Your task to perform on an android device: Show the shopping cart on ebay. Search for "bose quietcomfort 35" on ebay, select the first entry, and add it to the cart. Image 0: 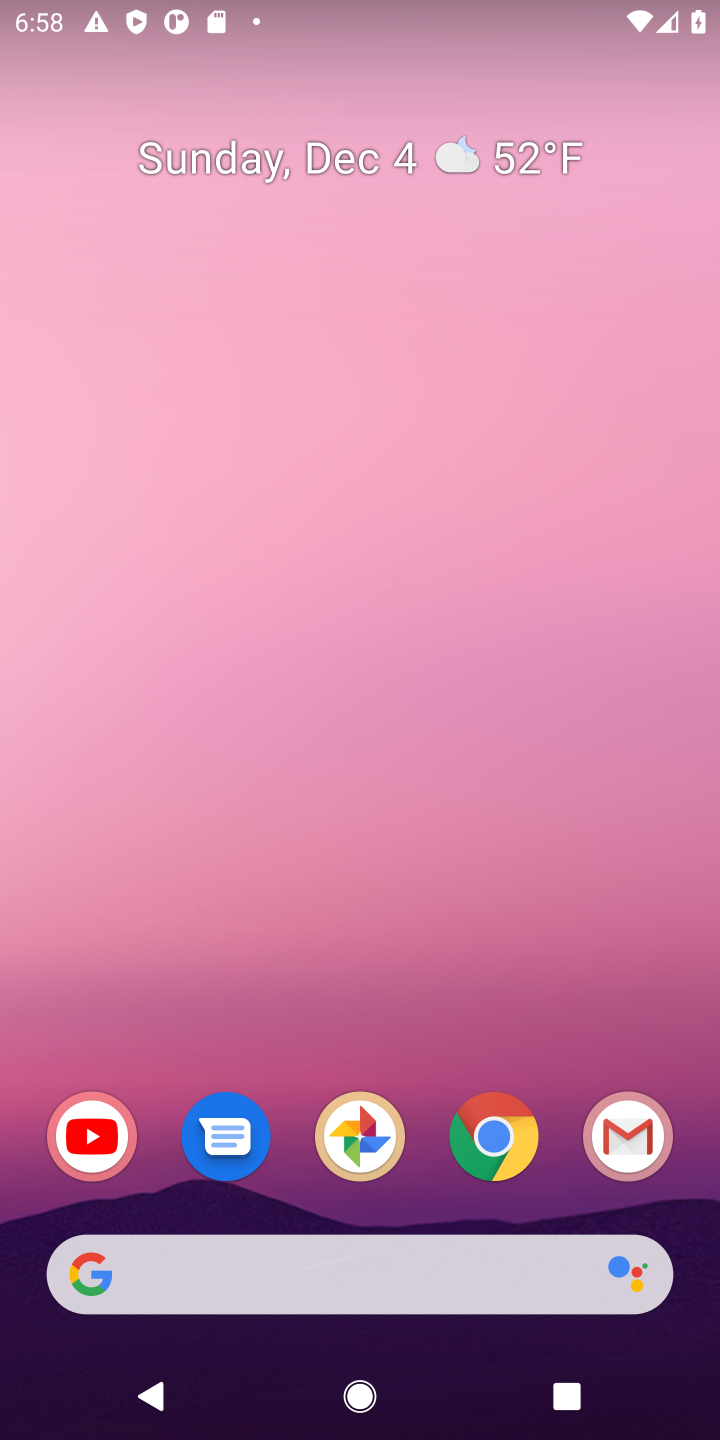
Step 0: click (497, 1126)
Your task to perform on an android device: Show the shopping cart on ebay. Search for "bose quietcomfort 35" on ebay, select the first entry, and add it to the cart. Image 1: 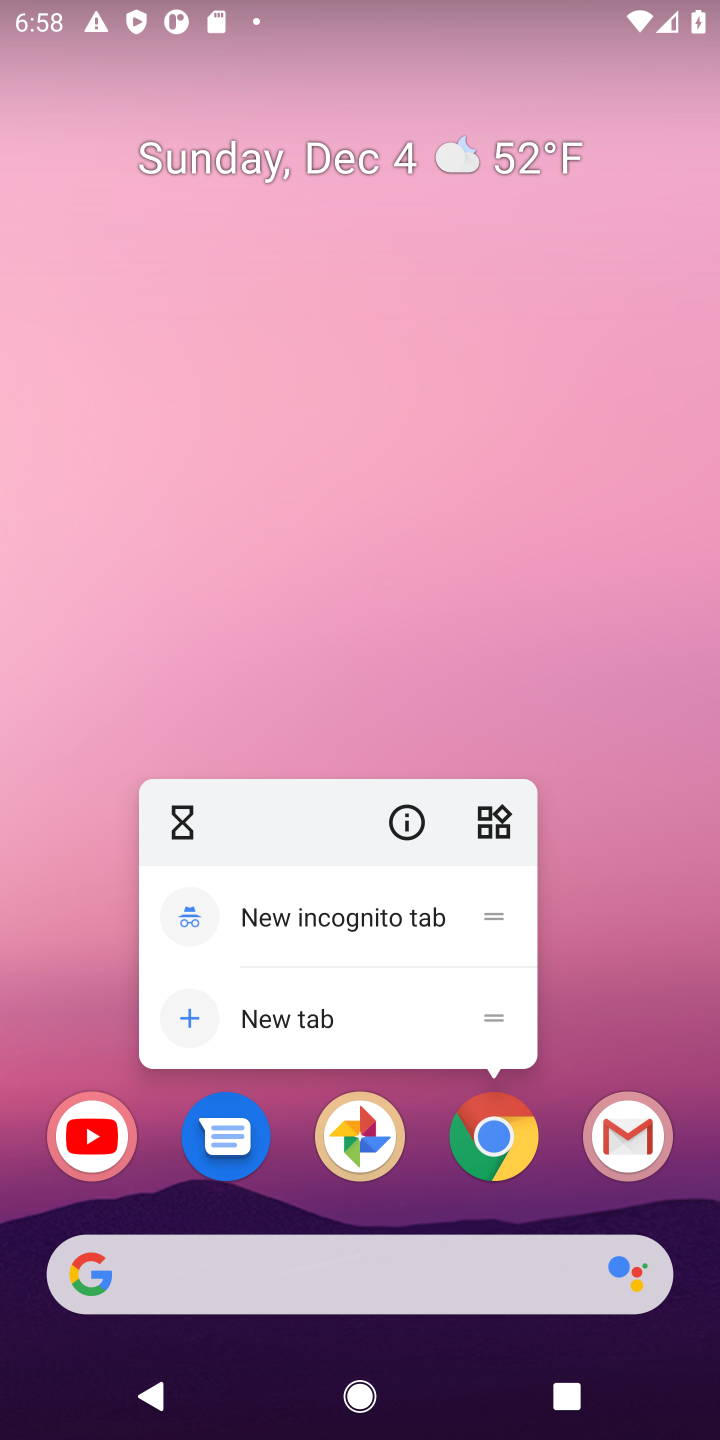
Step 1: click (497, 1126)
Your task to perform on an android device: Show the shopping cart on ebay. Search for "bose quietcomfort 35" on ebay, select the first entry, and add it to the cart. Image 2: 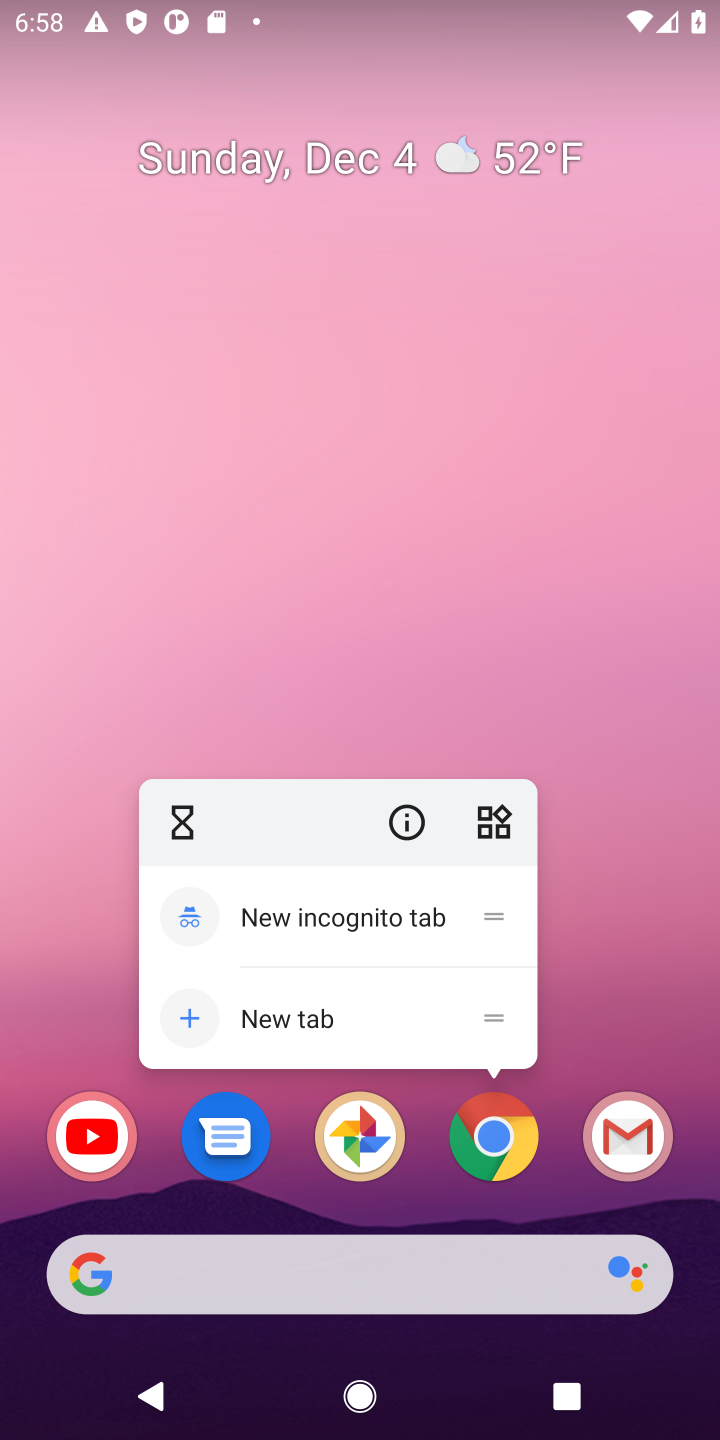
Step 2: click (499, 1140)
Your task to perform on an android device: Show the shopping cart on ebay. Search for "bose quietcomfort 35" on ebay, select the first entry, and add it to the cart. Image 3: 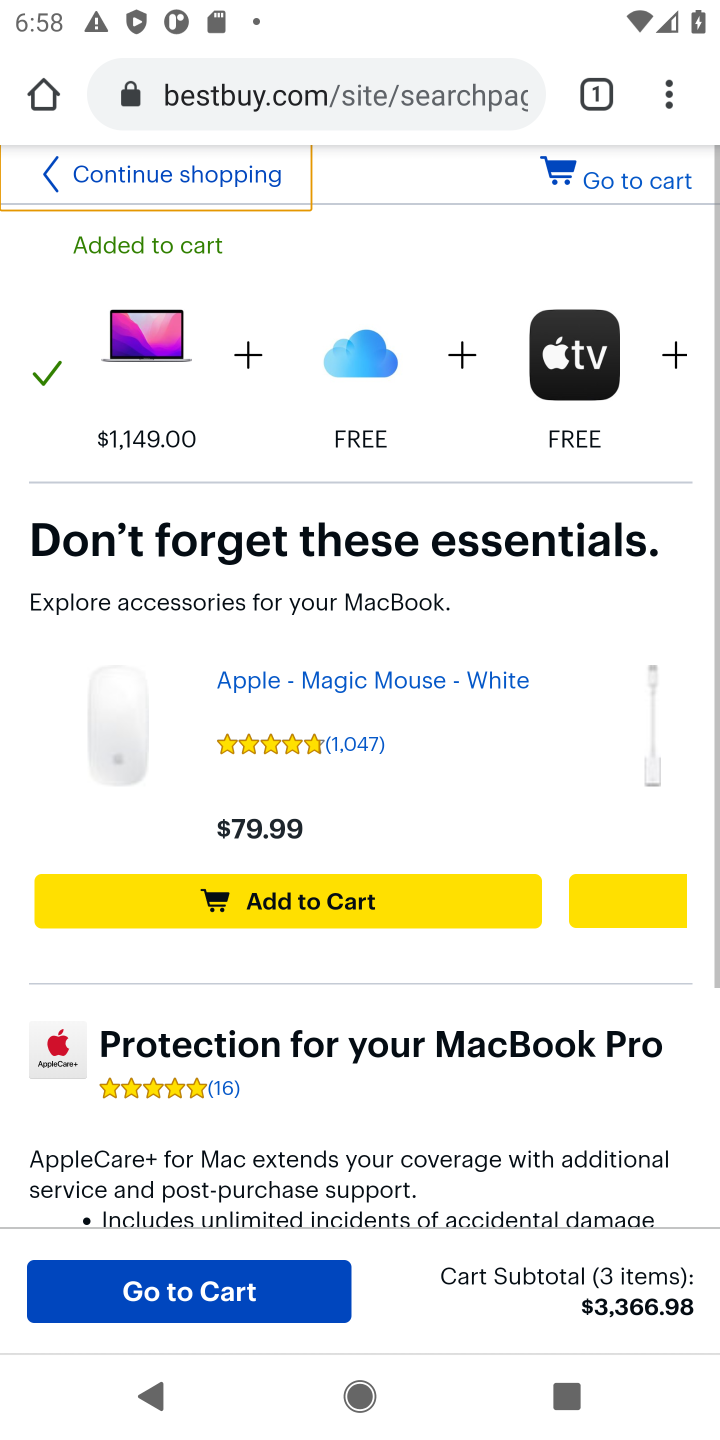
Step 3: click (291, 102)
Your task to perform on an android device: Show the shopping cart on ebay. Search for "bose quietcomfort 35" on ebay, select the first entry, and add it to the cart. Image 4: 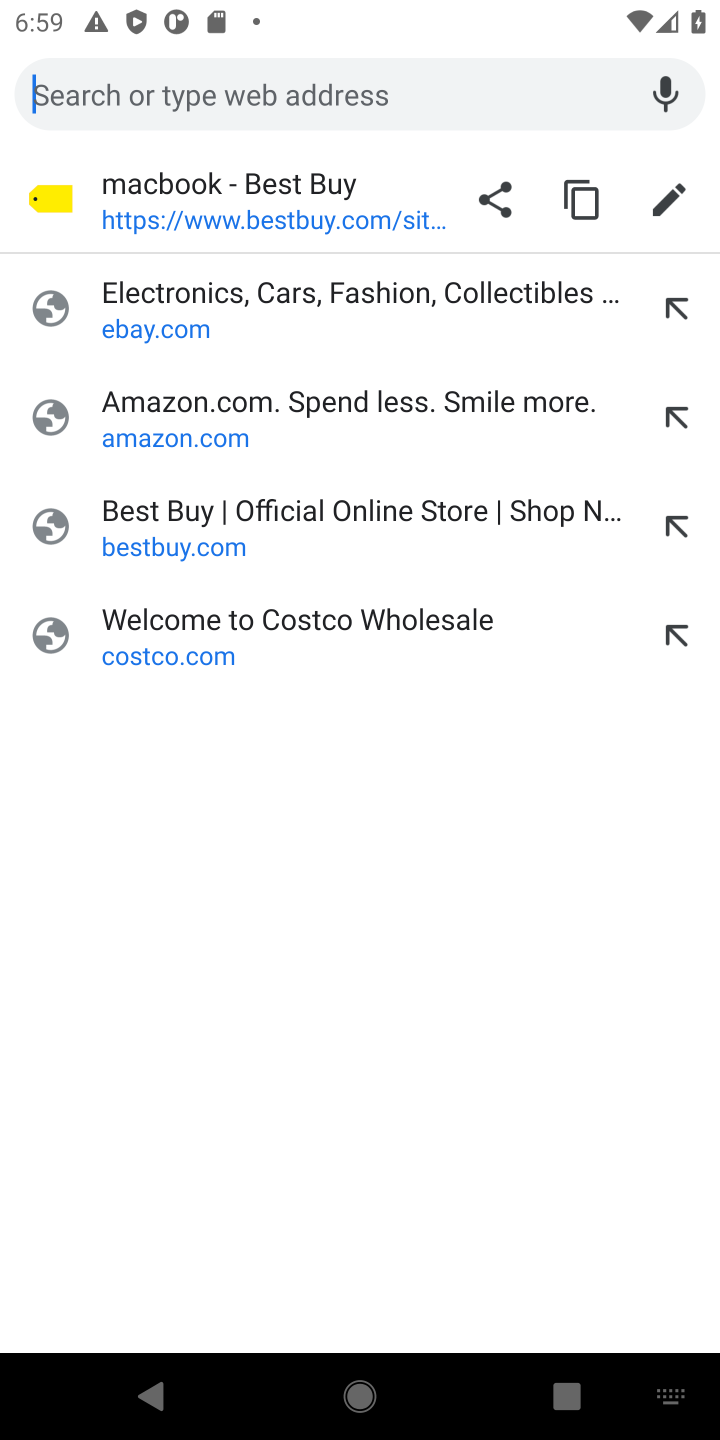
Step 4: click (143, 331)
Your task to perform on an android device: Show the shopping cart on ebay. Search for "bose quietcomfort 35" on ebay, select the first entry, and add it to the cart. Image 5: 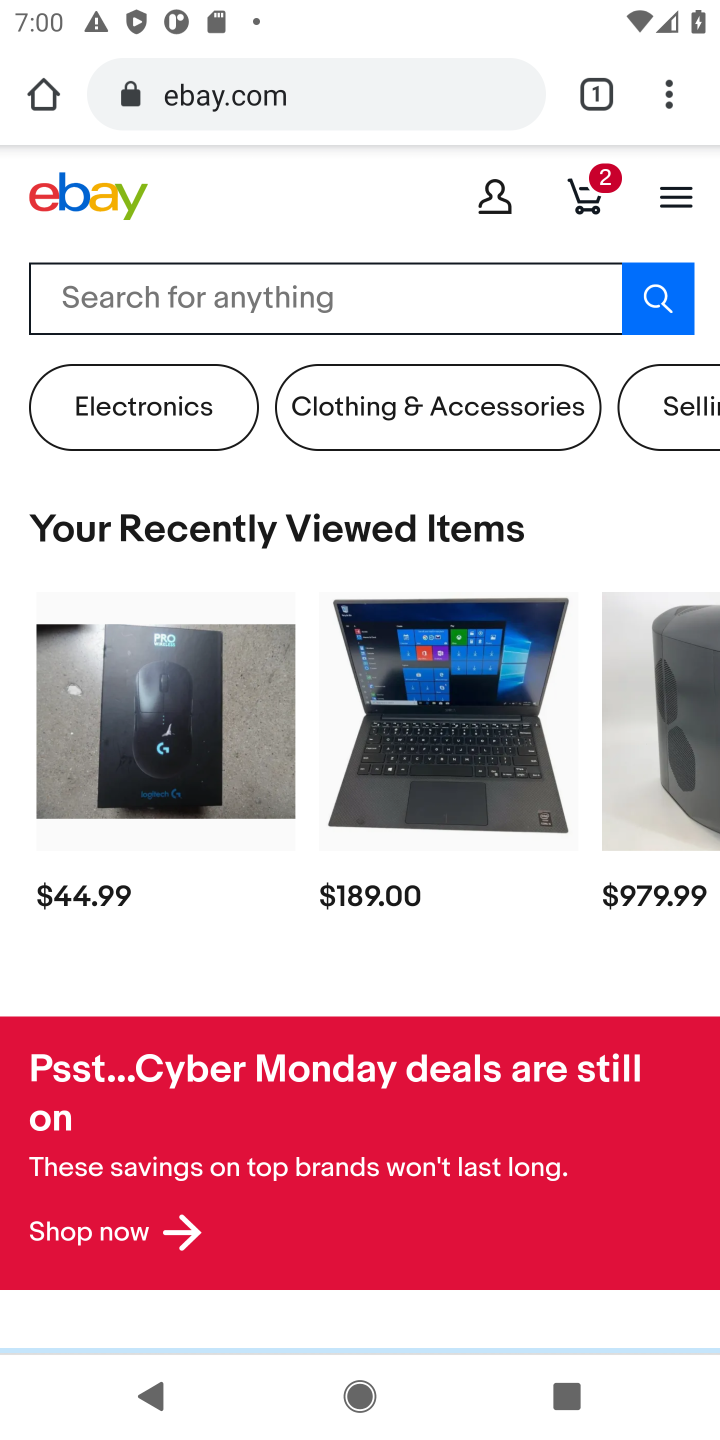
Step 5: click (580, 196)
Your task to perform on an android device: Show the shopping cart on ebay. Search for "bose quietcomfort 35" on ebay, select the first entry, and add it to the cart. Image 6: 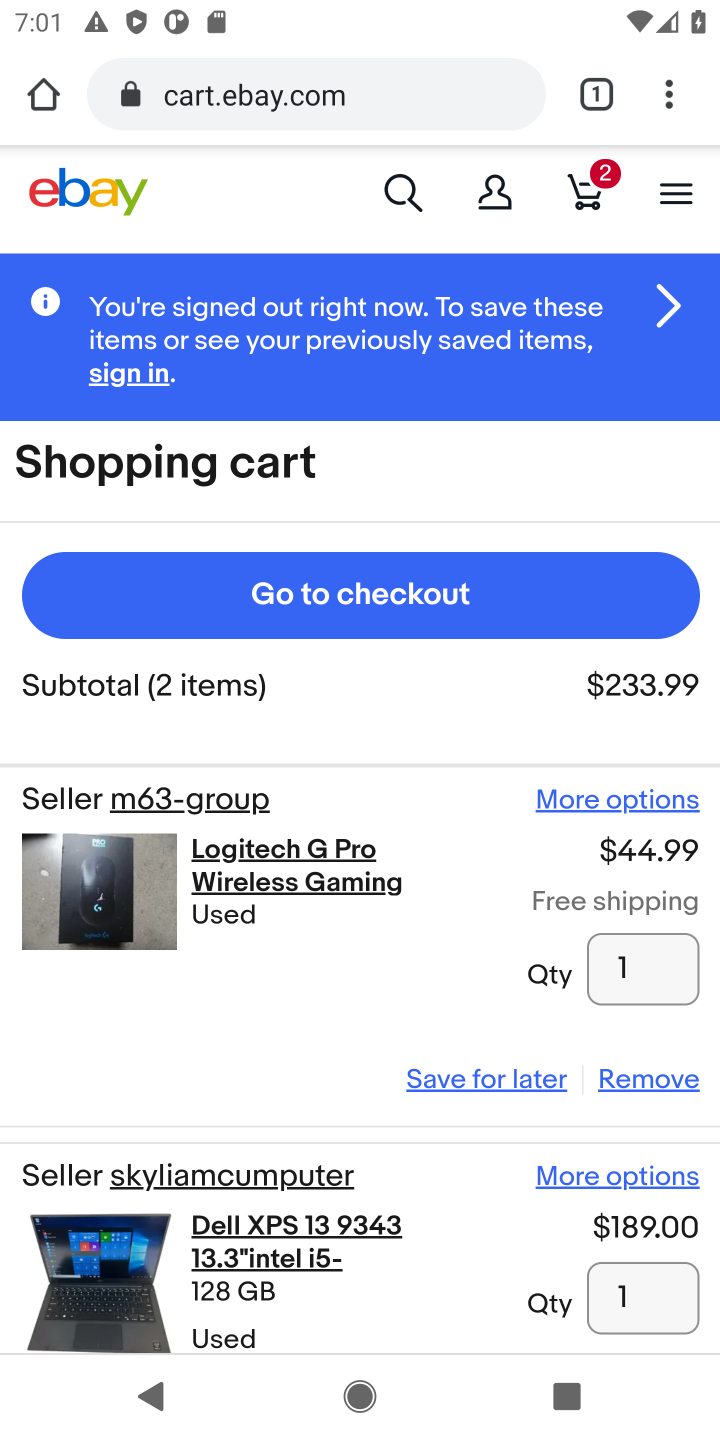
Step 6: click (392, 187)
Your task to perform on an android device: Show the shopping cart on ebay. Search for "bose quietcomfort 35" on ebay, select the first entry, and add it to the cart. Image 7: 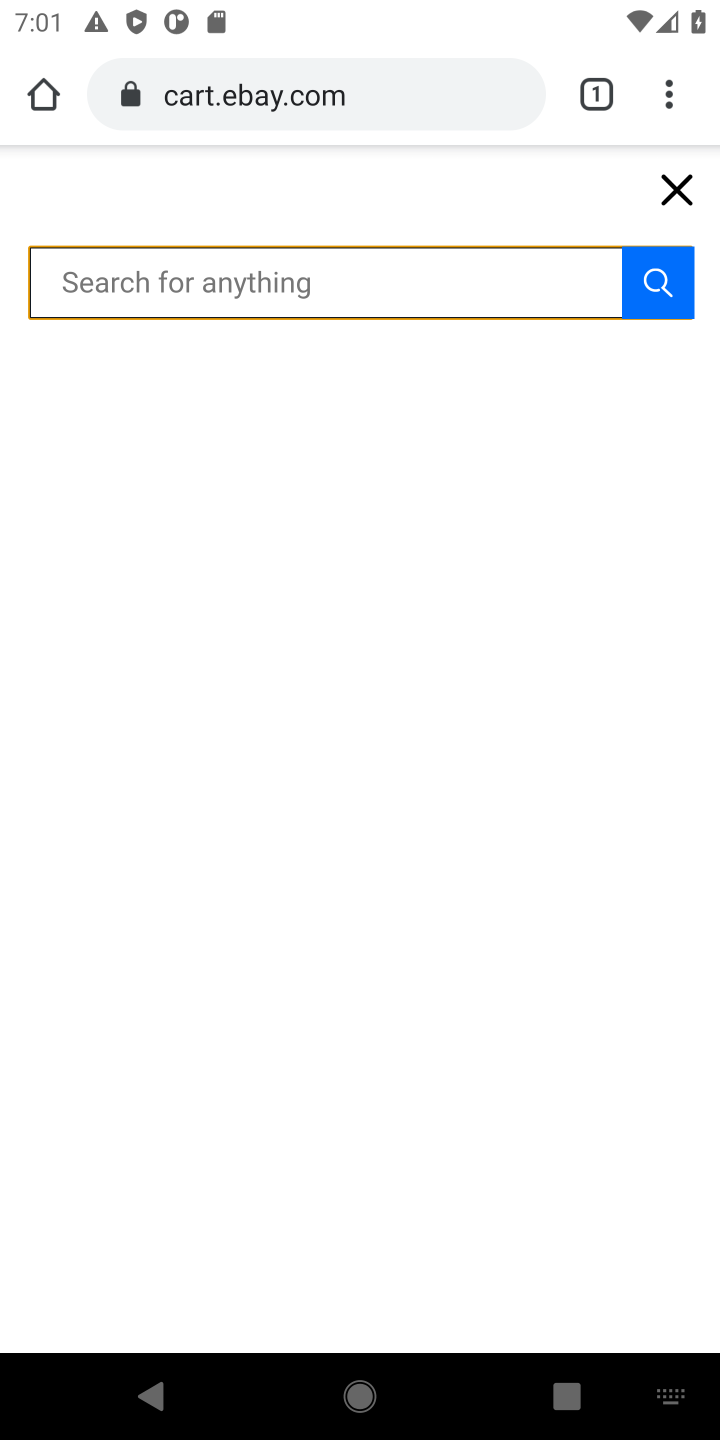
Step 7: type "bose quietcomfort 35"
Your task to perform on an android device: Show the shopping cart on ebay. Search for "bose quietcomfort 35" on ebay, select the first entry, and add it to the cart. Image 8: 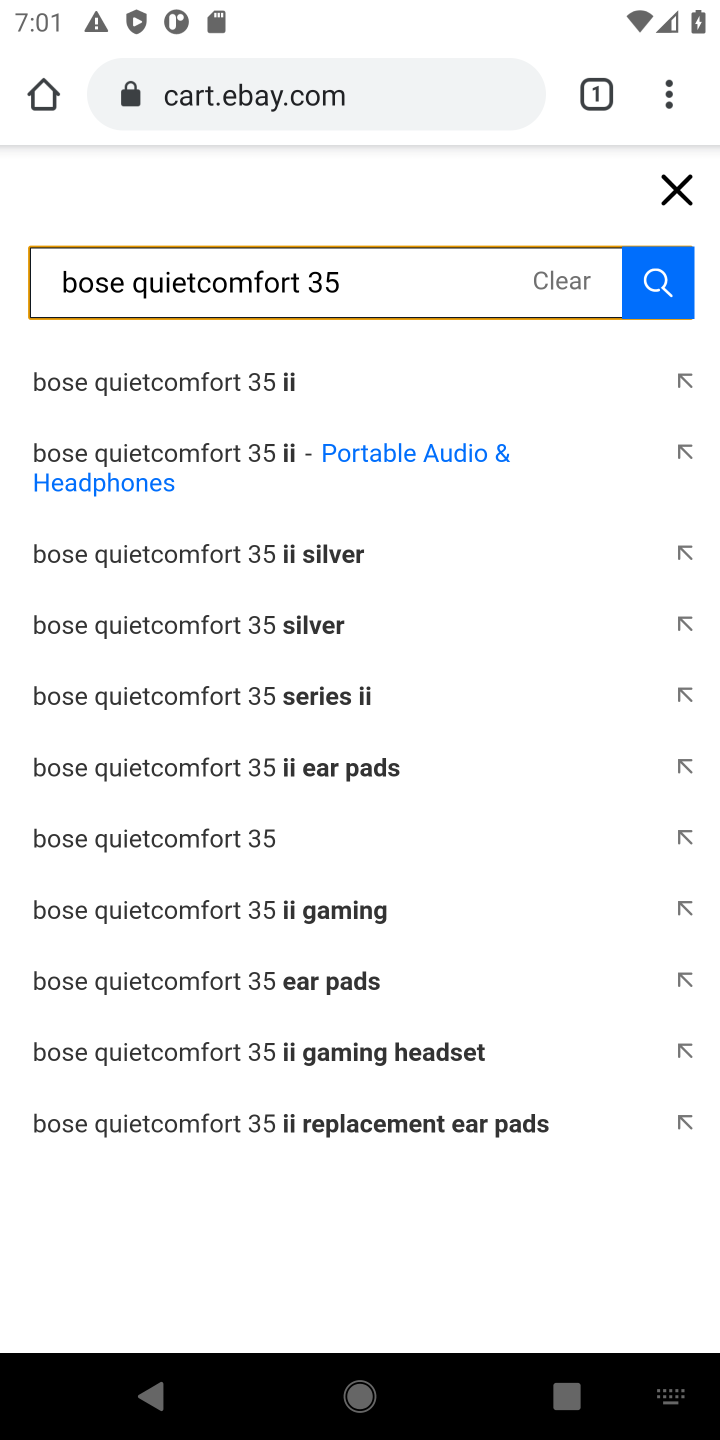
Step 8: click (117, 837)
Your task to perform on an android device: Show the shopping cart on ebay. Search for "bose quietcomfort 35" on ebay, select the first entry, and add it to the cart. Image 9: 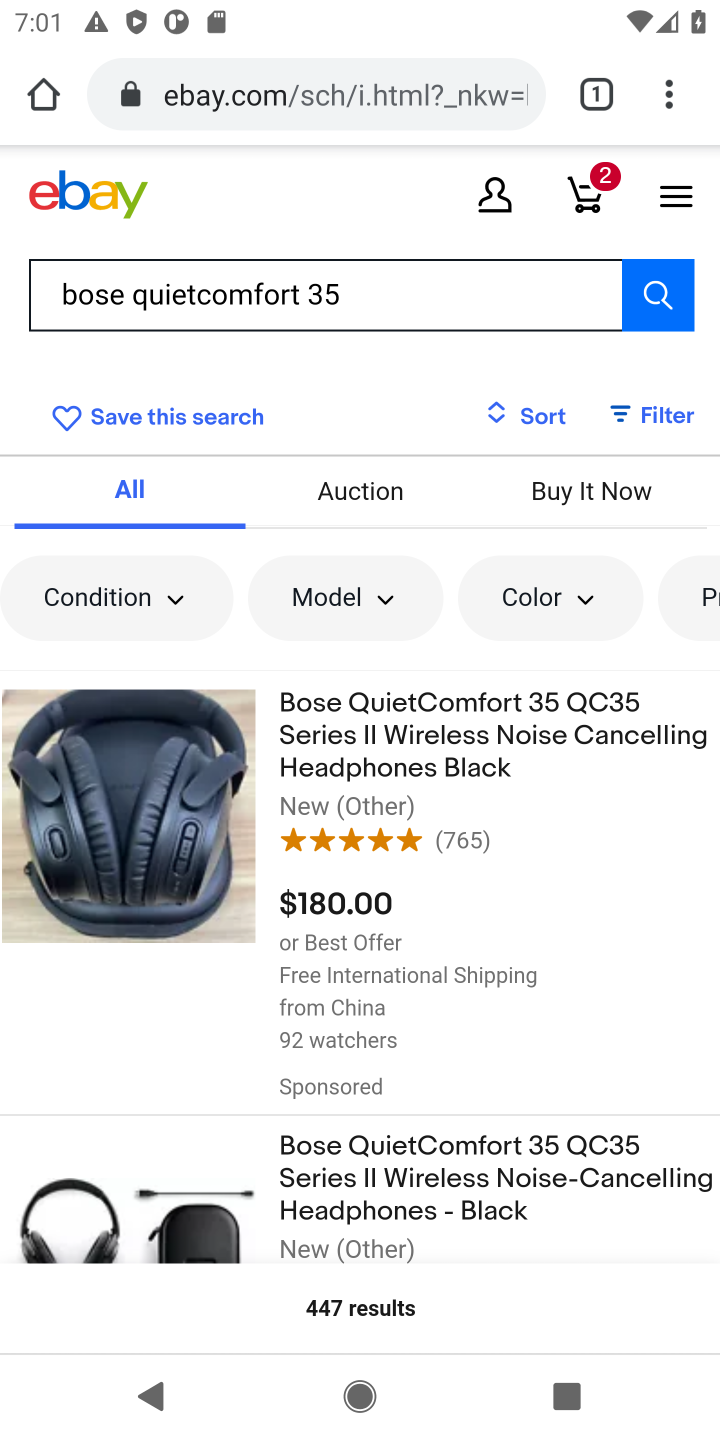
Step 9: click (399, 724)
Your task to perform on an android device: Show the shopping cart on ebay. Search for "bose quietcomfort 35" on ebay, select the first entry, and add it to the cart. Image 10: 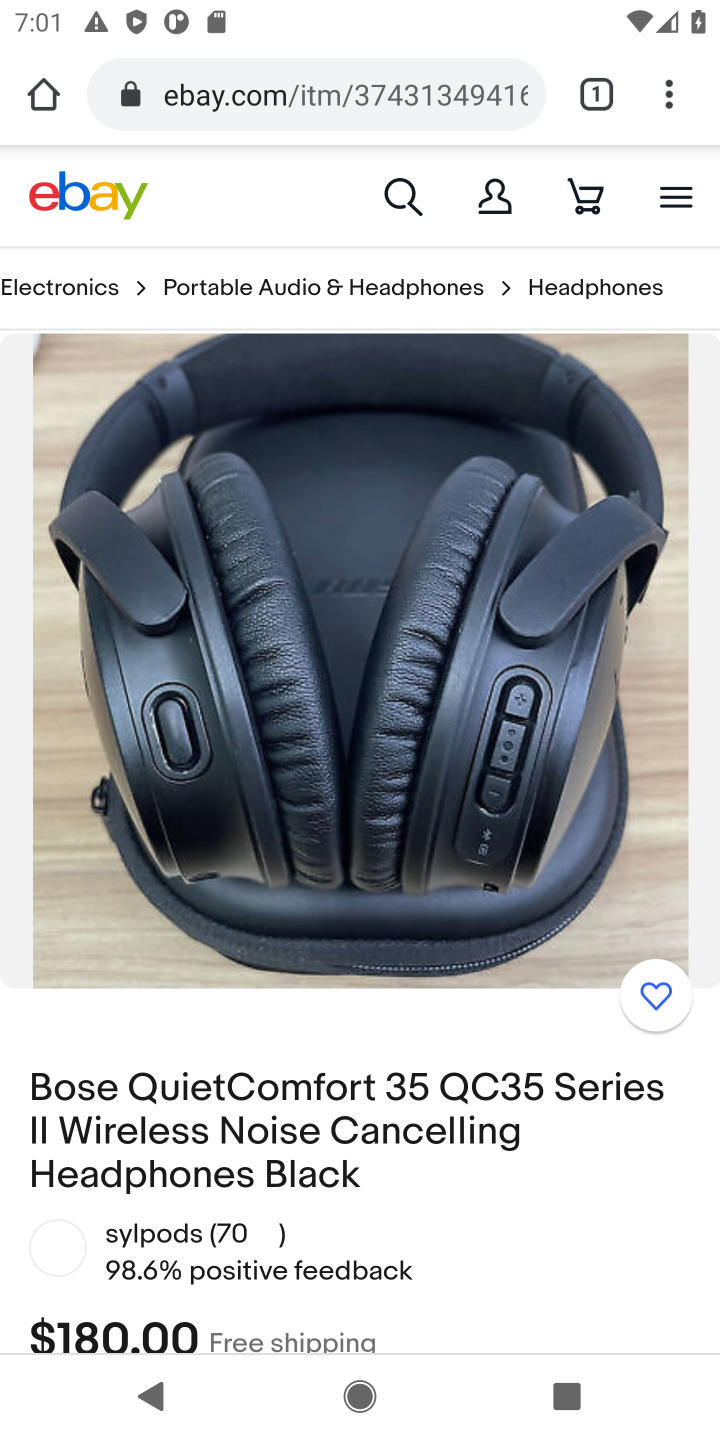
Step 10: drag from (416, 686) to (408, 533)
Your task to perform on an android device: Show the shopping cart on ebay. Search for "bose quietcomfort 35" on ebay, select the first entry, and add it to the cart. Image 11: 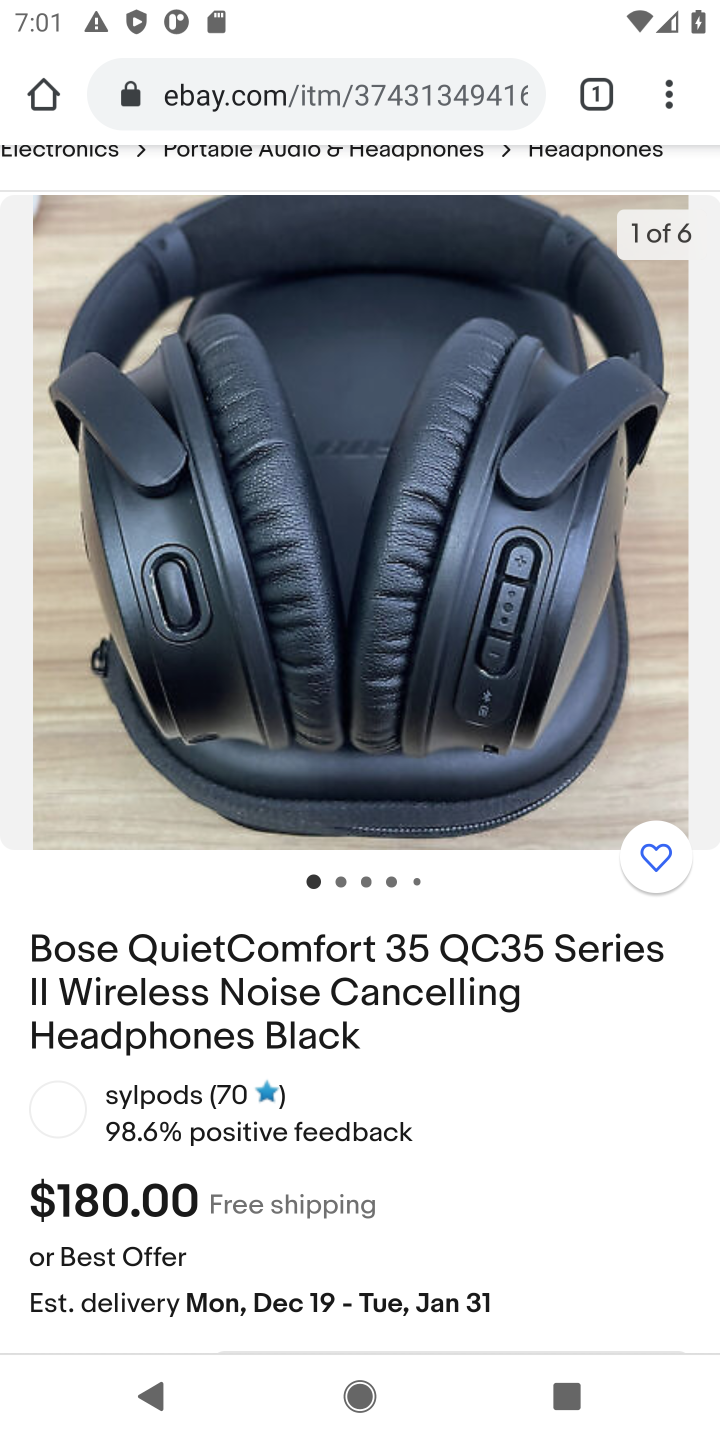
Step 11: drag from (537, 785) to (491, 465)
Your task to perform on an android device: Show the shopping cart on ebay. Search for "bose quietcomfort 35" on ebay, select the first entry, and add it to the cart. Image 12: 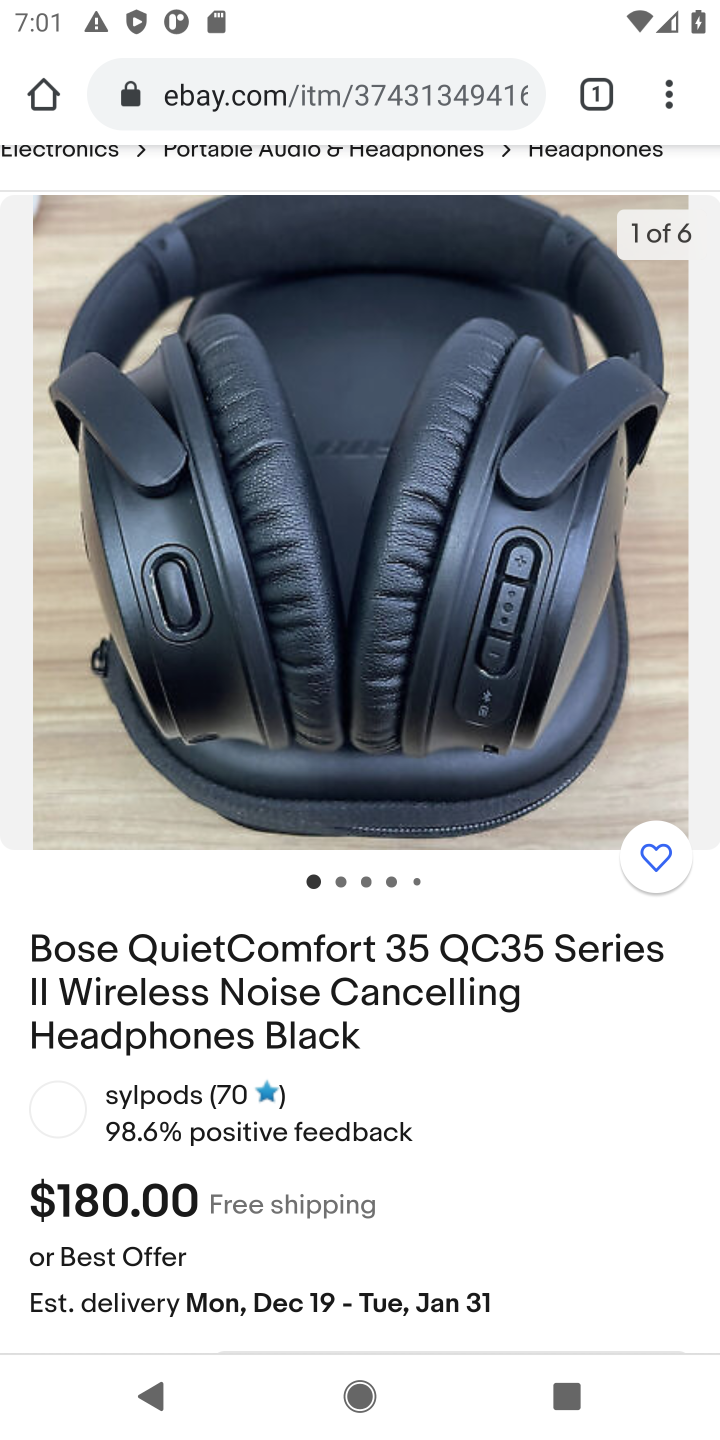
Step 12: click (562, 612)
Your task to perform on an android device: Show the shopping cart on ebay. Search for "bose quietcomfort 35" on ebay, select the first entry, and add it to the cart. Image 13: 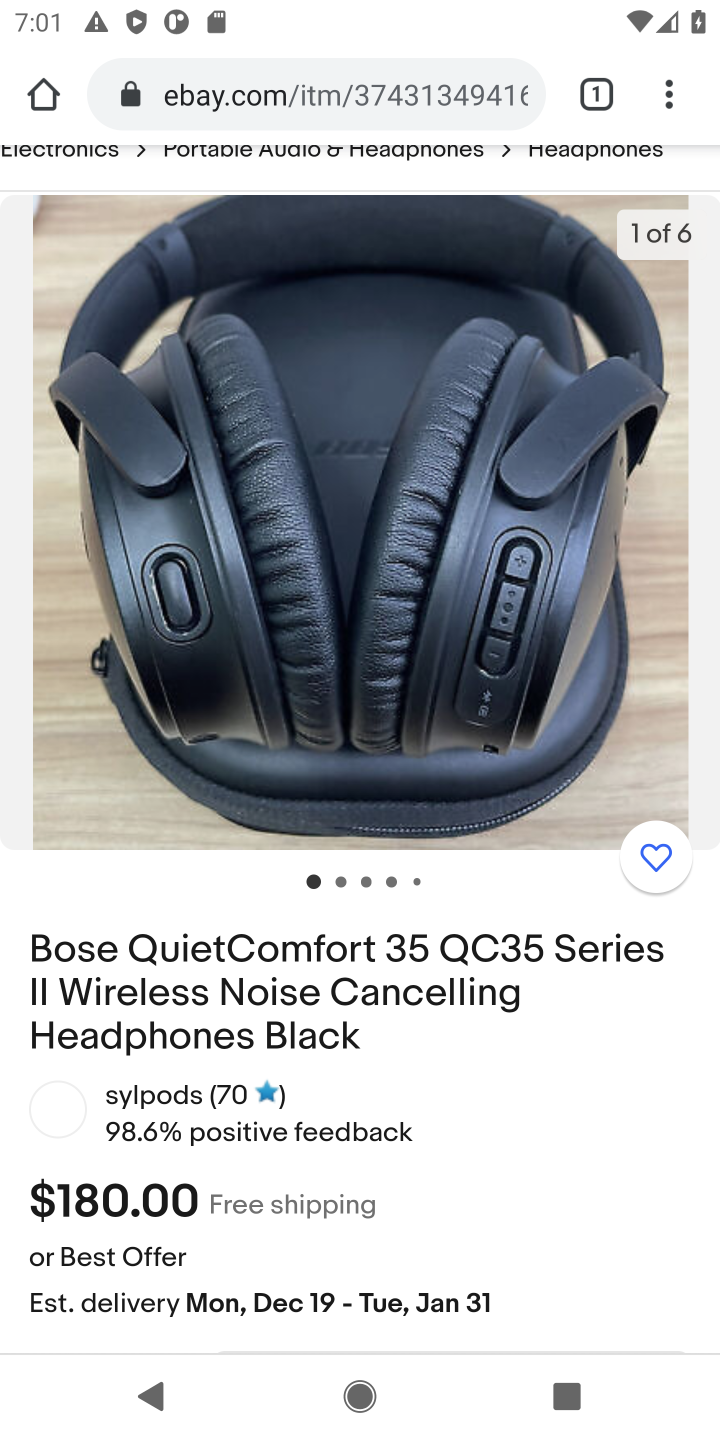
Step 13: drag from (470, 796) to (444, 440)
Your task to perform on an android device: Show the shopping cart on ebay. Search for "bose quietcomfort 35" on ebay, select the first entry, and add it to the cart. Image 14: 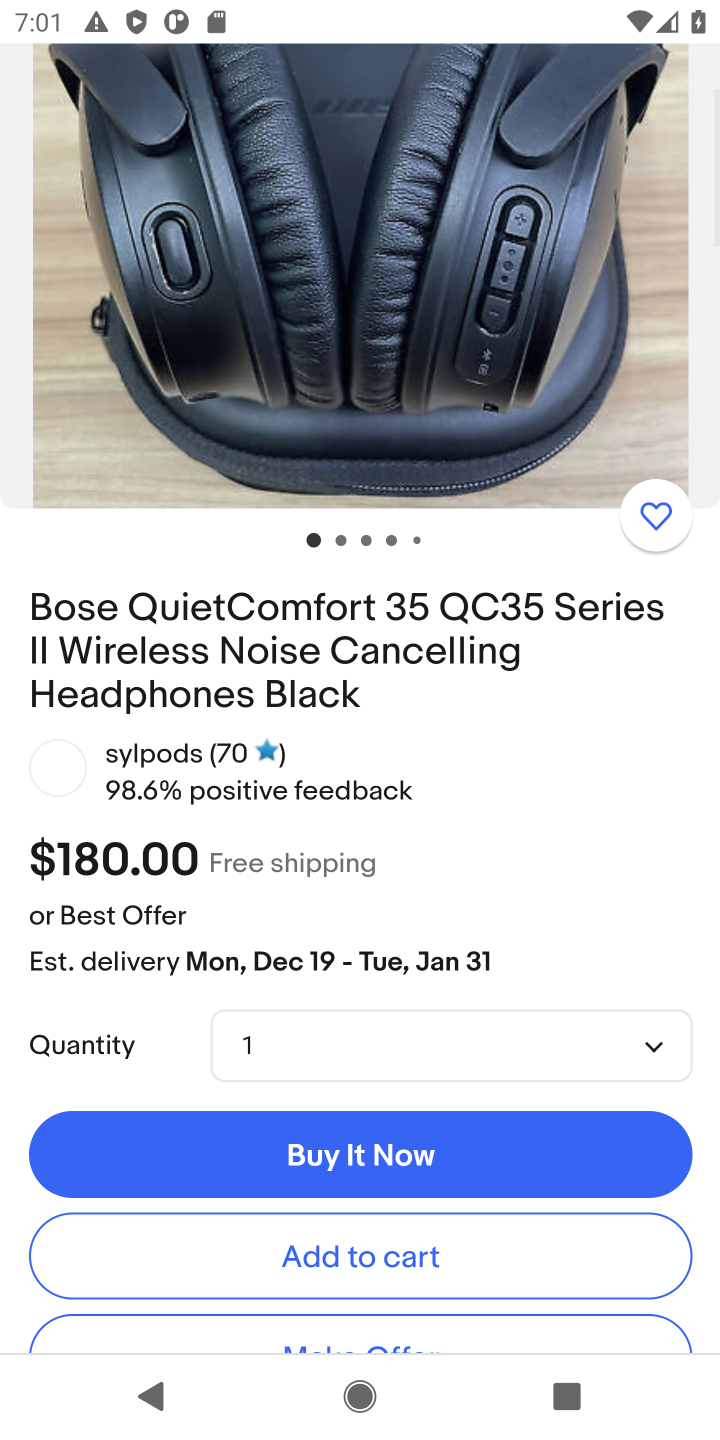
Step 14: drag from (473, 832) to (425, 492)
Your task to perform on an android device: Show the shopping cart on ebay. Search for "bose quietcomfort 35" on ebay, select the first entry, and add it to the cart. Image 15: 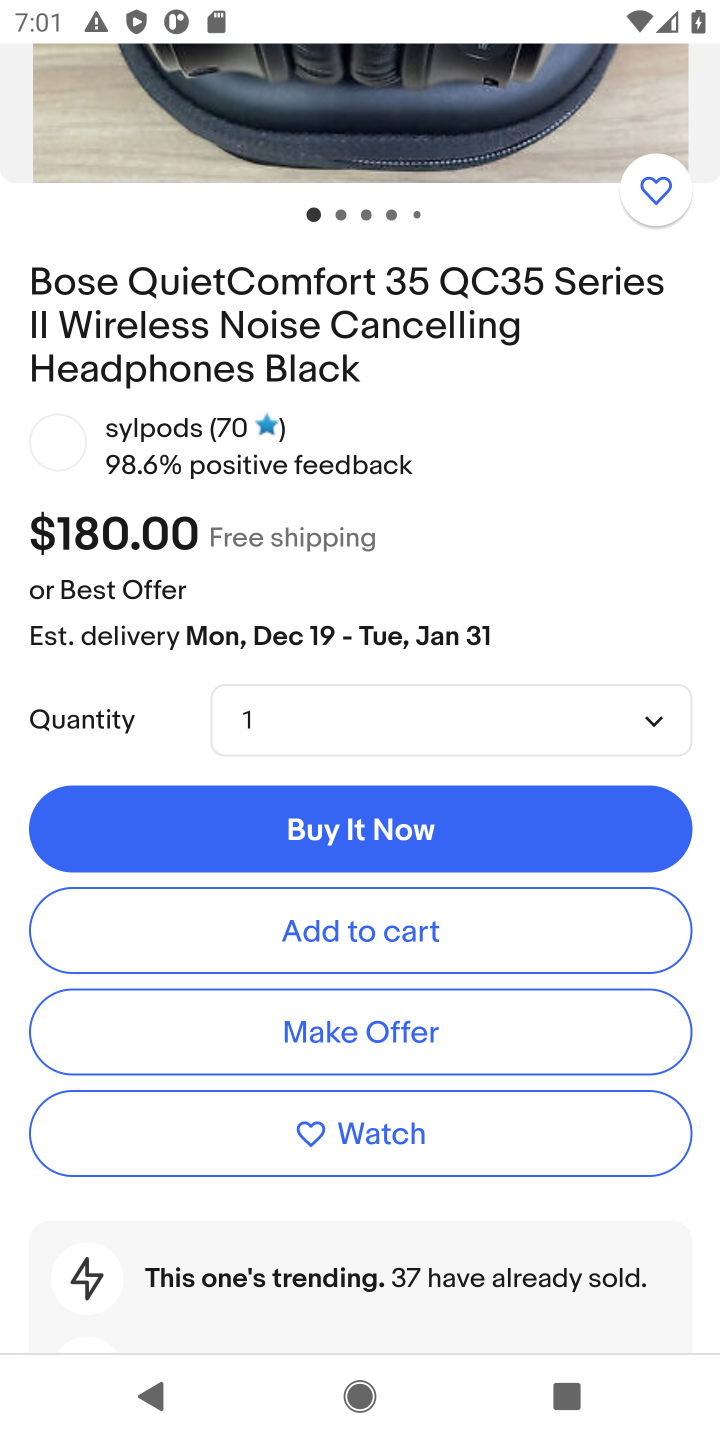
Step 15: click (301, 927)
Your task to perform on an android device: Show the shopping cart on ebay. Search for "bose quietcomfort 35" on ebay, select the first entry, and add it to the cart. Image 16: 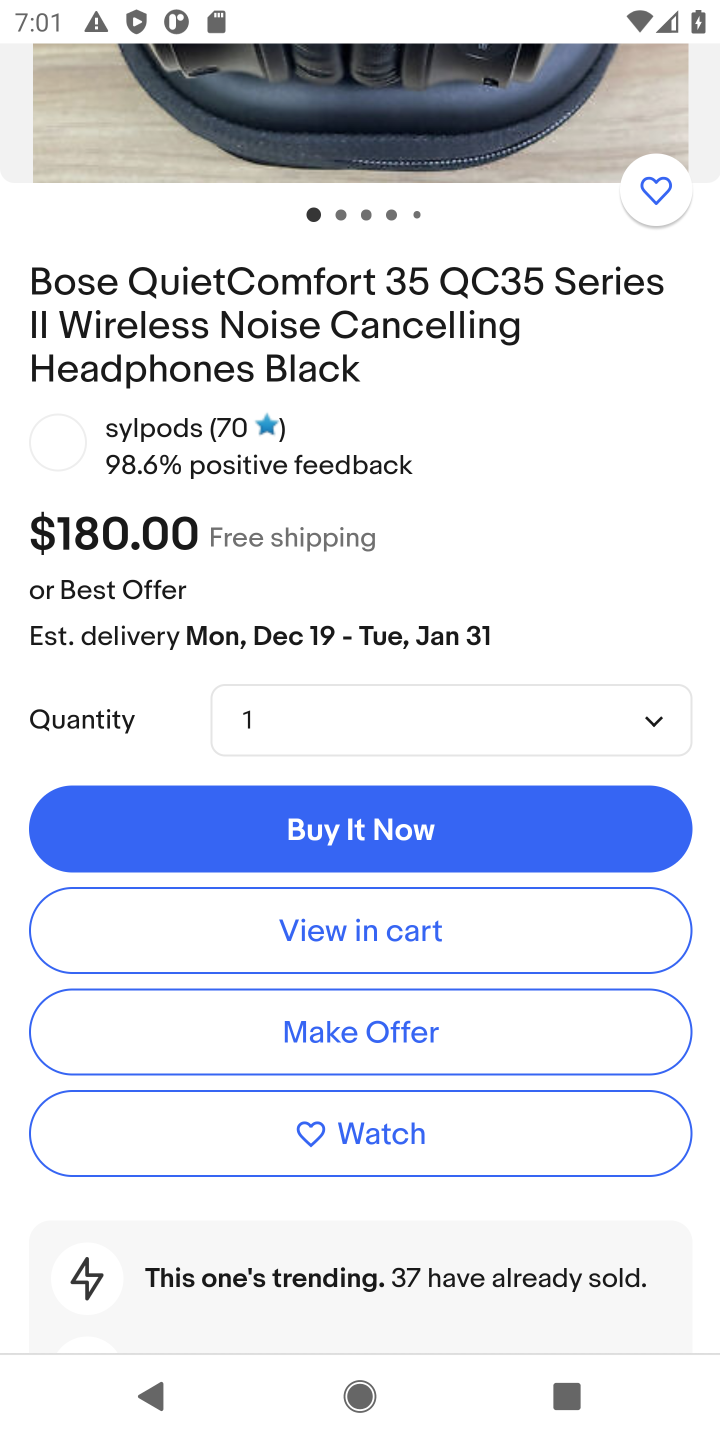
Step 16: task complete